Your task to perform on an android device: read, delete, or share a saved page in the chrome app Image 0: 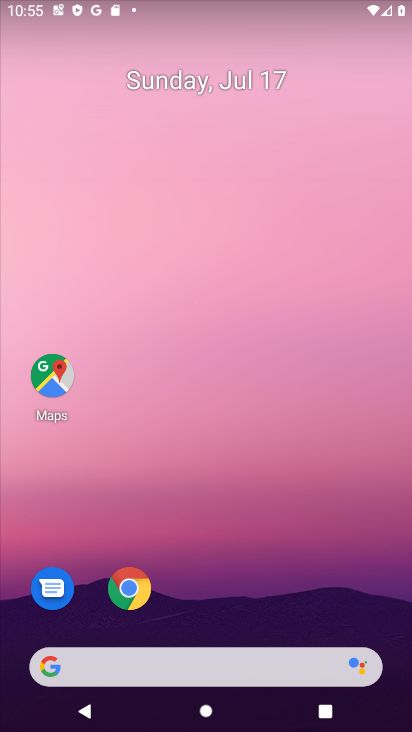
Step 0: press home button
Your task to perform on an android device: read, delete, or share a saved page in the chrome app Image 1: 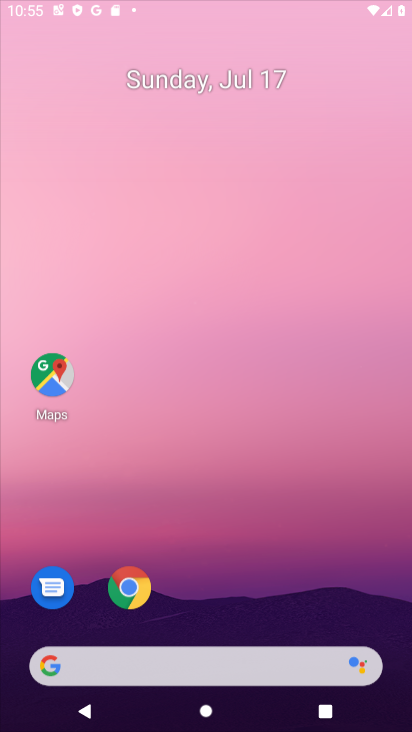
Step 1: drag from (219, 632) to (223, 43)
Your task to perform on an android device: read, delete, or share a saved page in the chrome app Image 2: 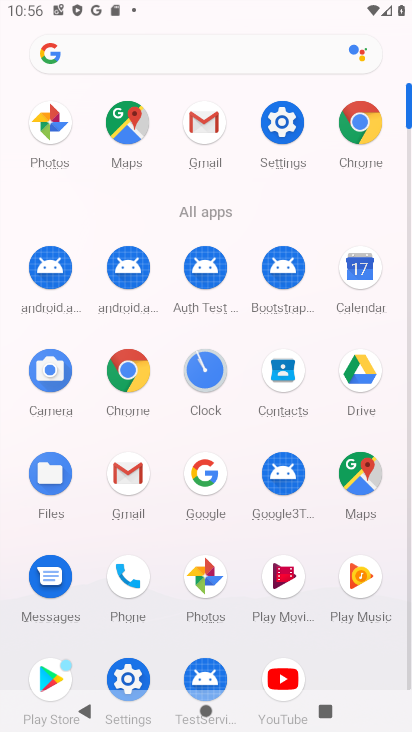
Step 2: click (354, 117)
Your task to perform on an android device: read, delete, or share a saved page in the chrome app Image 3: 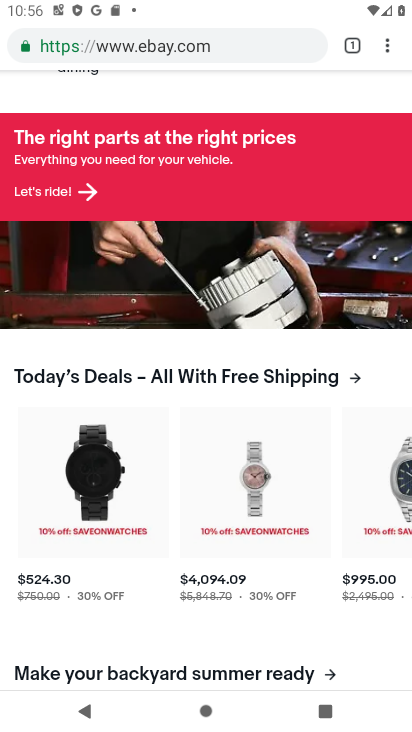
Step 3: click (387, 48)
Your task to perform on an android device: read, delete, or share a saved page in the chrome app Image 4: 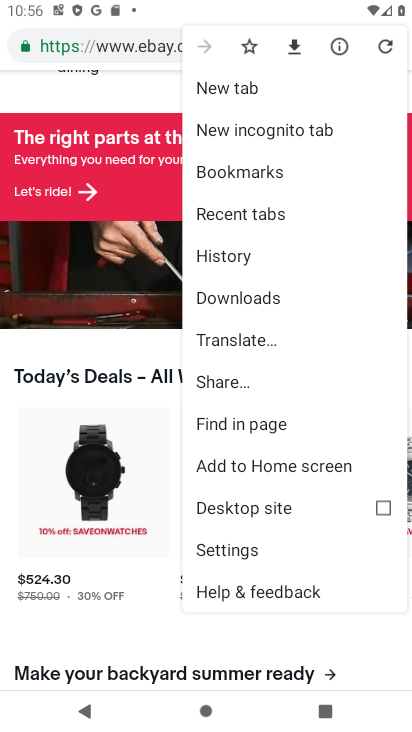
Step 4: click (293, 298)
Your task to perform on an android device: read, delete, or share a saved page in the chrome app Image 5: 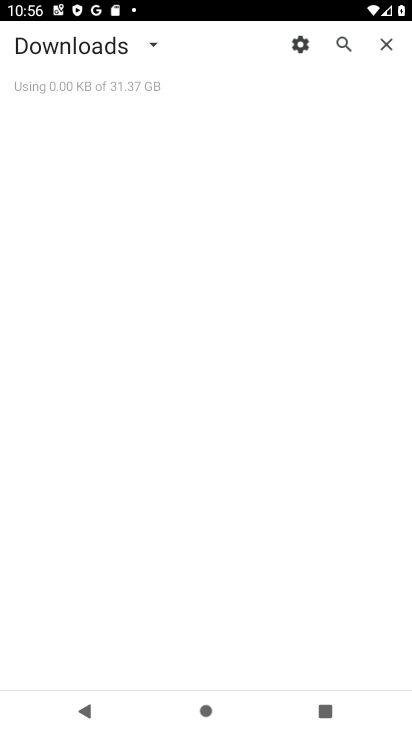
Step 5: task complete